Your task to perform on an android device: Go to sound settings Image 0: 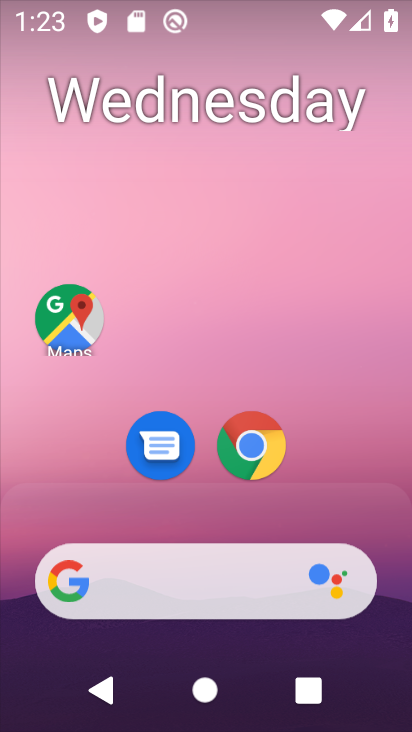
Step 0: drag from (199, 529) to (140, 92)
Your task to perform on an android device: Go to sound settings Image 1: 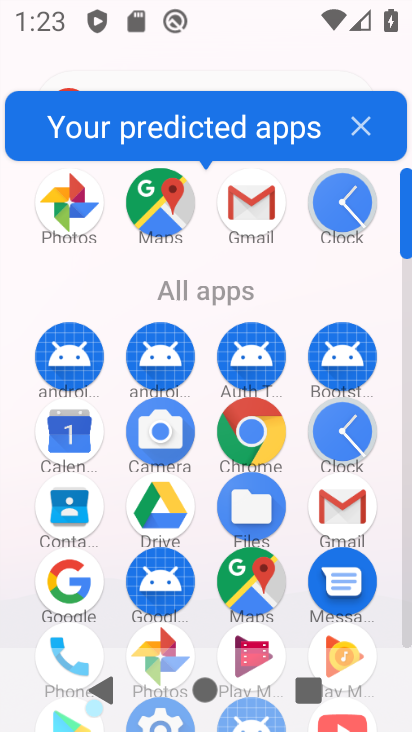
Step 1: drag from (202, 622) to (182, 307)
Your task to perform on an android device: Go to sound settings Image 2: 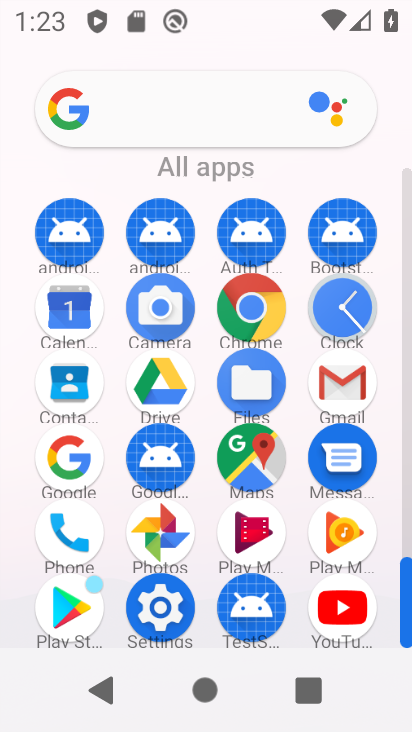
Step 2: click (143, 602)
Your task to perform on an android device: Go to sound settings Image 3: 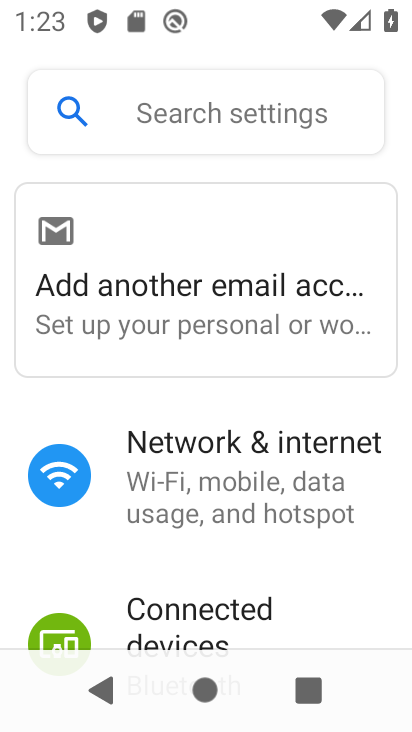
Step 3: drag from (332, 618) to (295, 253)
Your task to perform on an android device: Go to sound settings Image 4: 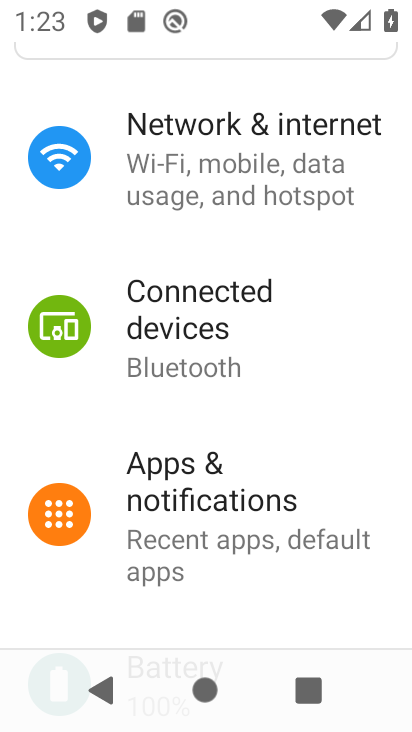
Step 4: drag from (242, 583) to (209, 179)
Your task to perform on an android device: Go to sound settings Image 5: 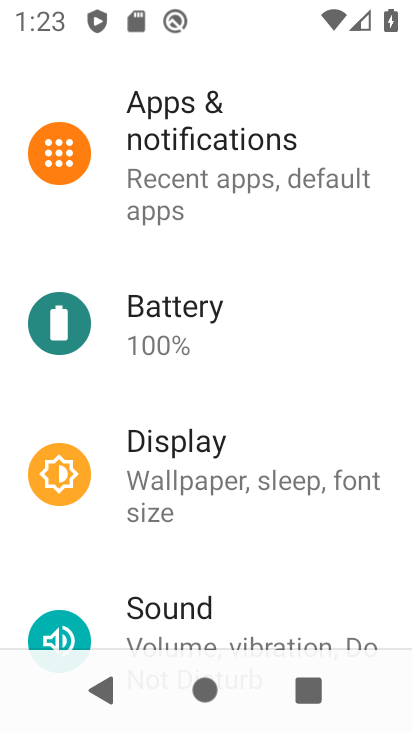
Step 5: click (158, 625)
Your task to perform on an android device: Go to sound settings Image 6: 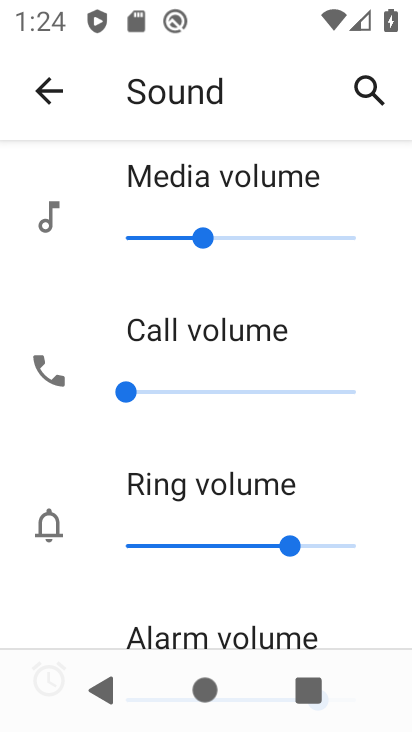
Step 6: task complete